Your task to perform on an android device: Show the shopping cart on target. Search for "logitech g933" on target, select the first entry, add it to the cart, then select checkout. Image 0: 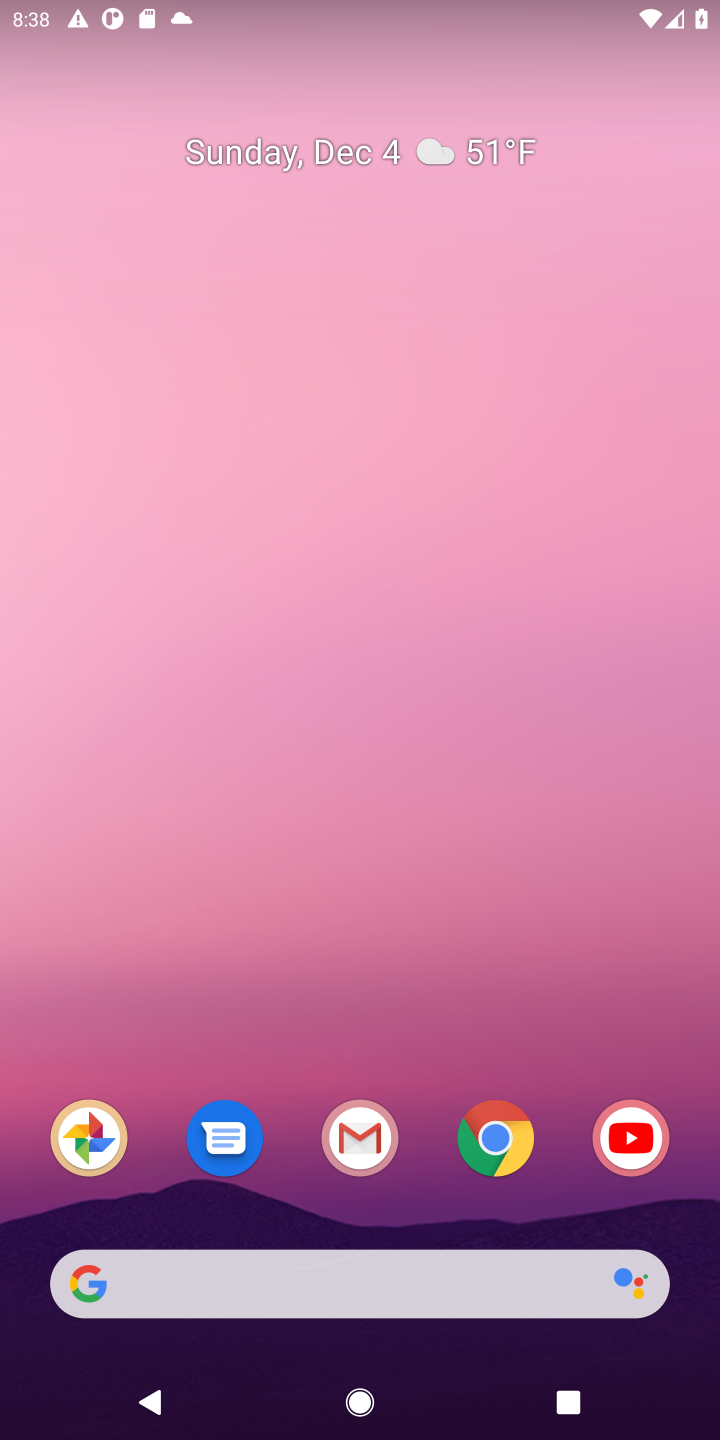
Step 0: click (500, 1134)
Your task to perform on an android device: Show the shopping cart on target. Search for "logitech g933" on target, select the first entry, add it to the cart, then select checkout. Image 1: 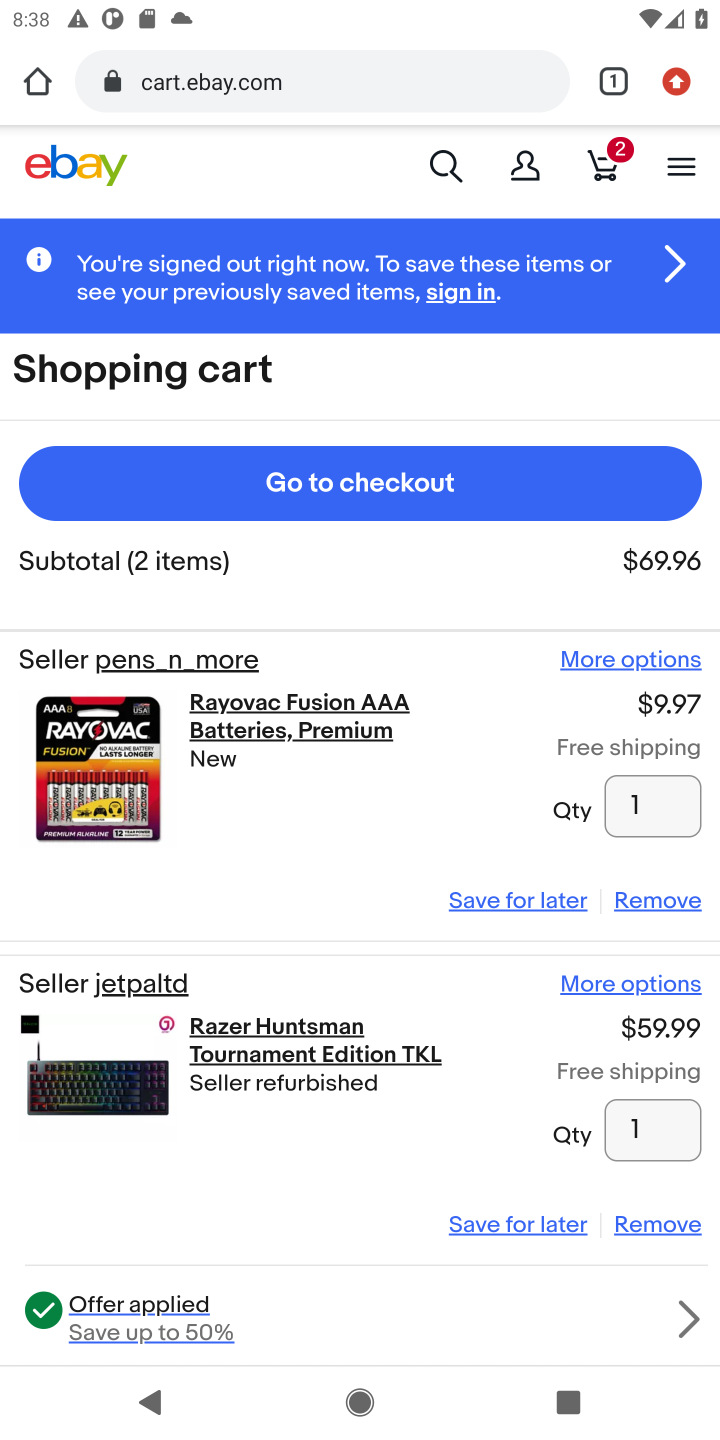
Step 1: click (460, 71)
Your task to perform on an android device: Show the shopping cart on target. Search for "logitech g933" on target, select the first entry, add it to the cart, then select checkout. Image 2: 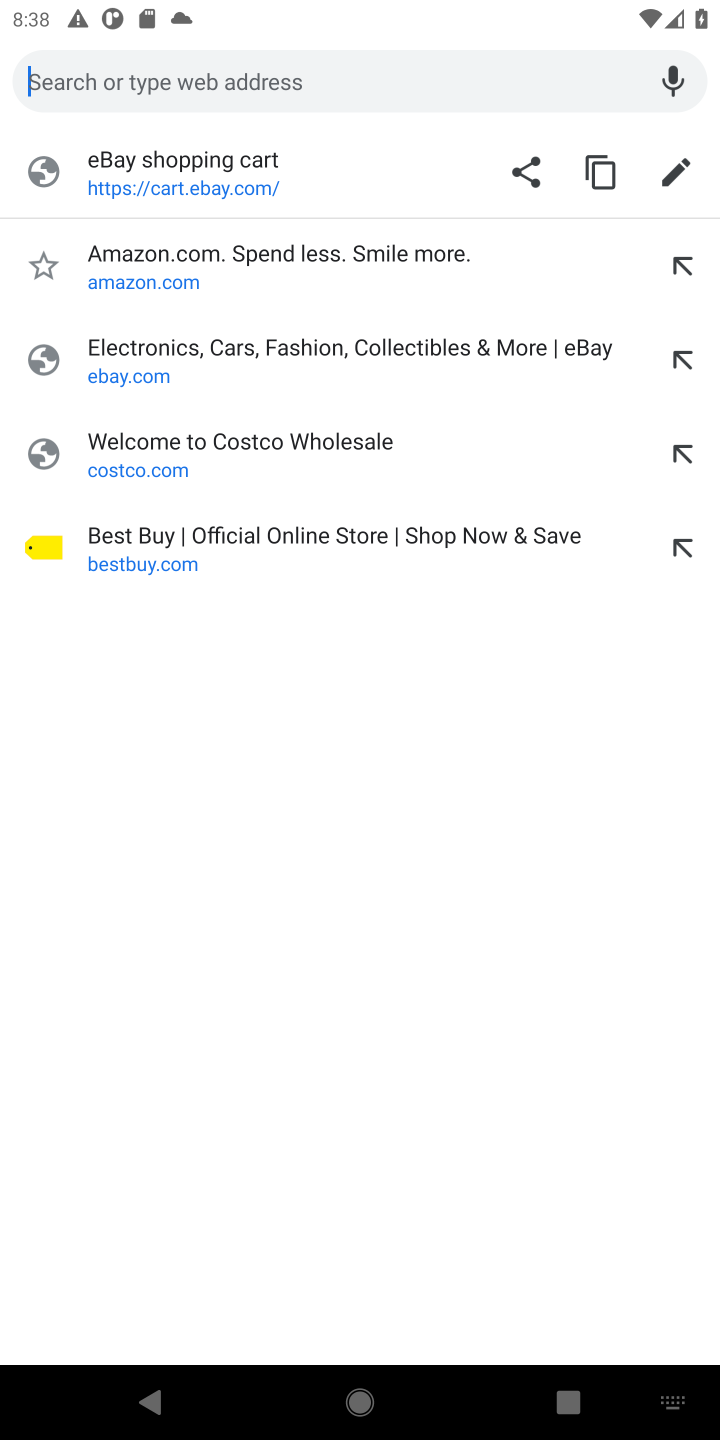
Step 2: type "target"
Your task to perform on an android device: Show the shopping cart on target. Search for "logitech g933" on target, select the first entry, add it to the cart, then select checkout. Image 3: 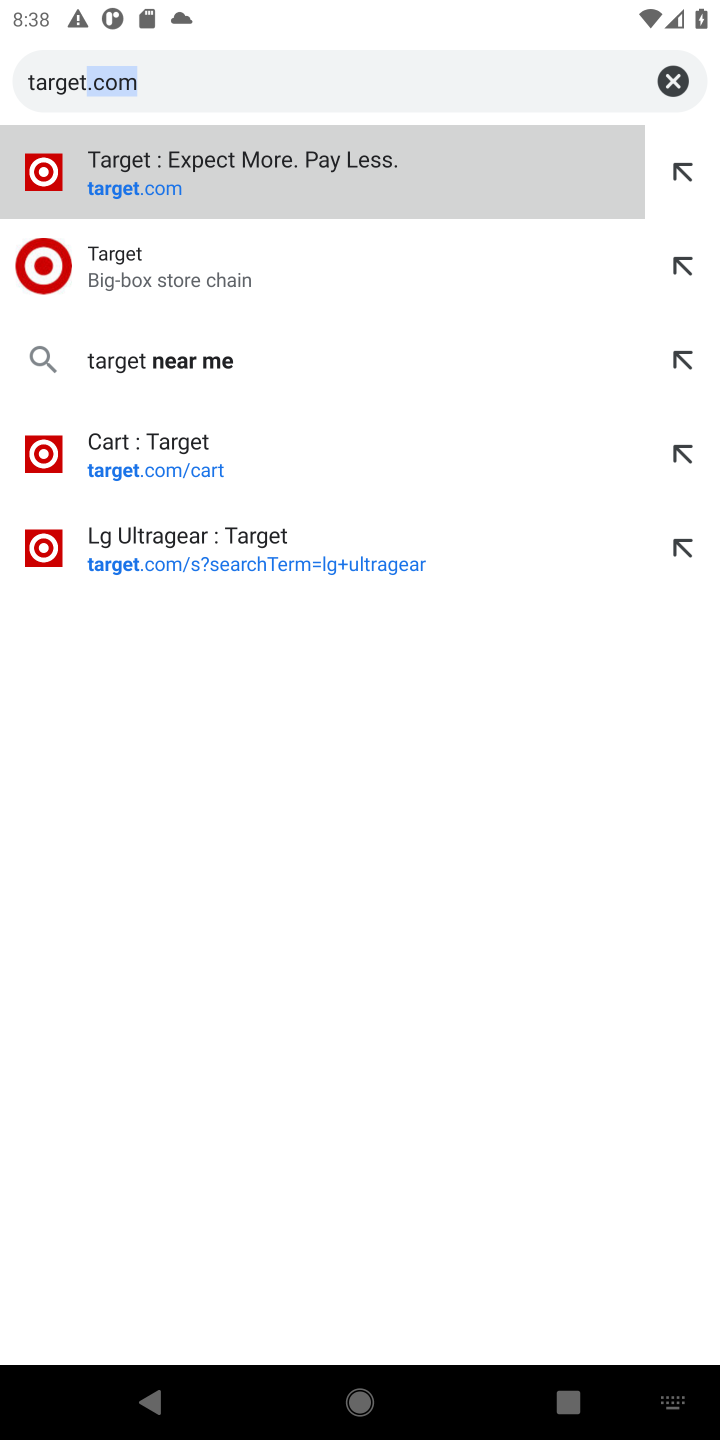
Step 3: press enter
Your task to perform on an android device: Show the shopping cart on target. Search for "logitech g933" on target, select the first entry, add it to the cart, then select checkout. Image 4: 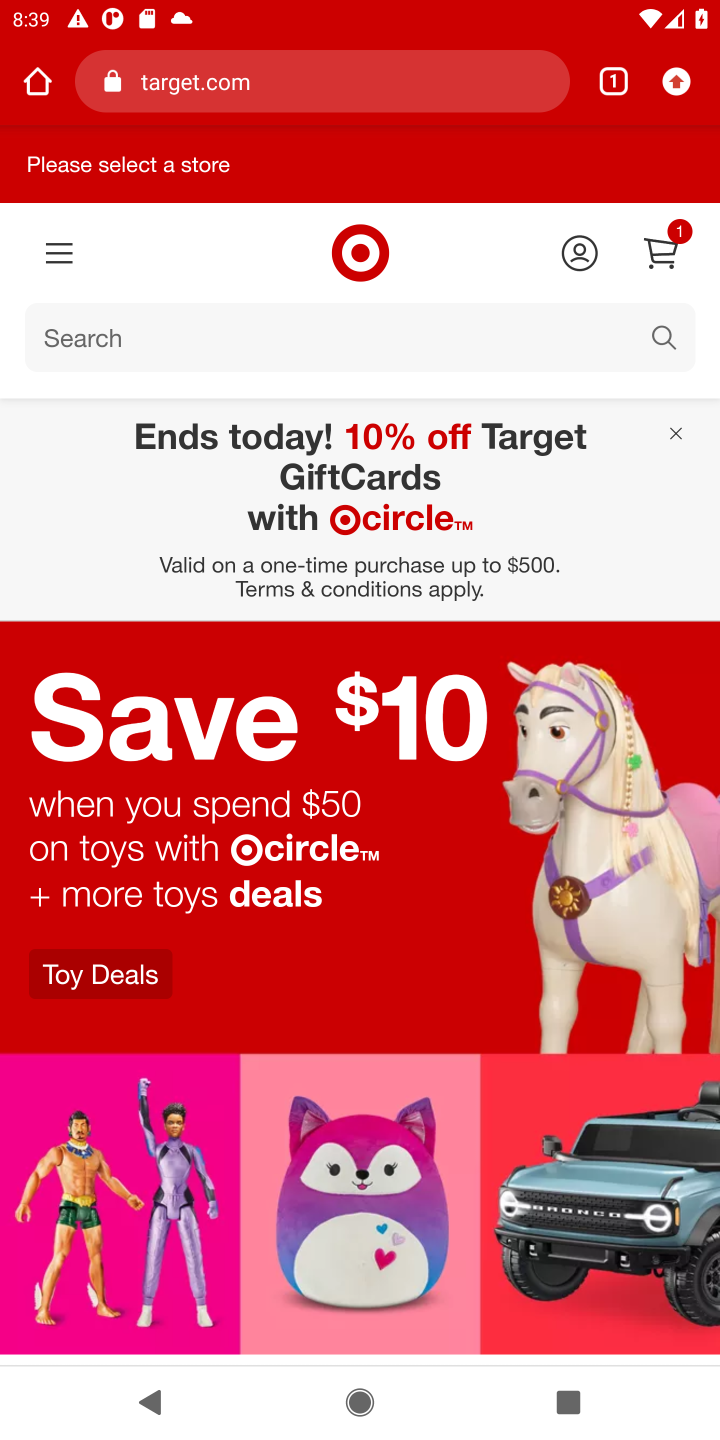
Step 4: click (655, 336)
Your task to perform on an android device: Show the shopping cart on target. Search for "logitech g933" on target, select the first entry, add it to the cart, then select checkout. Image 5: 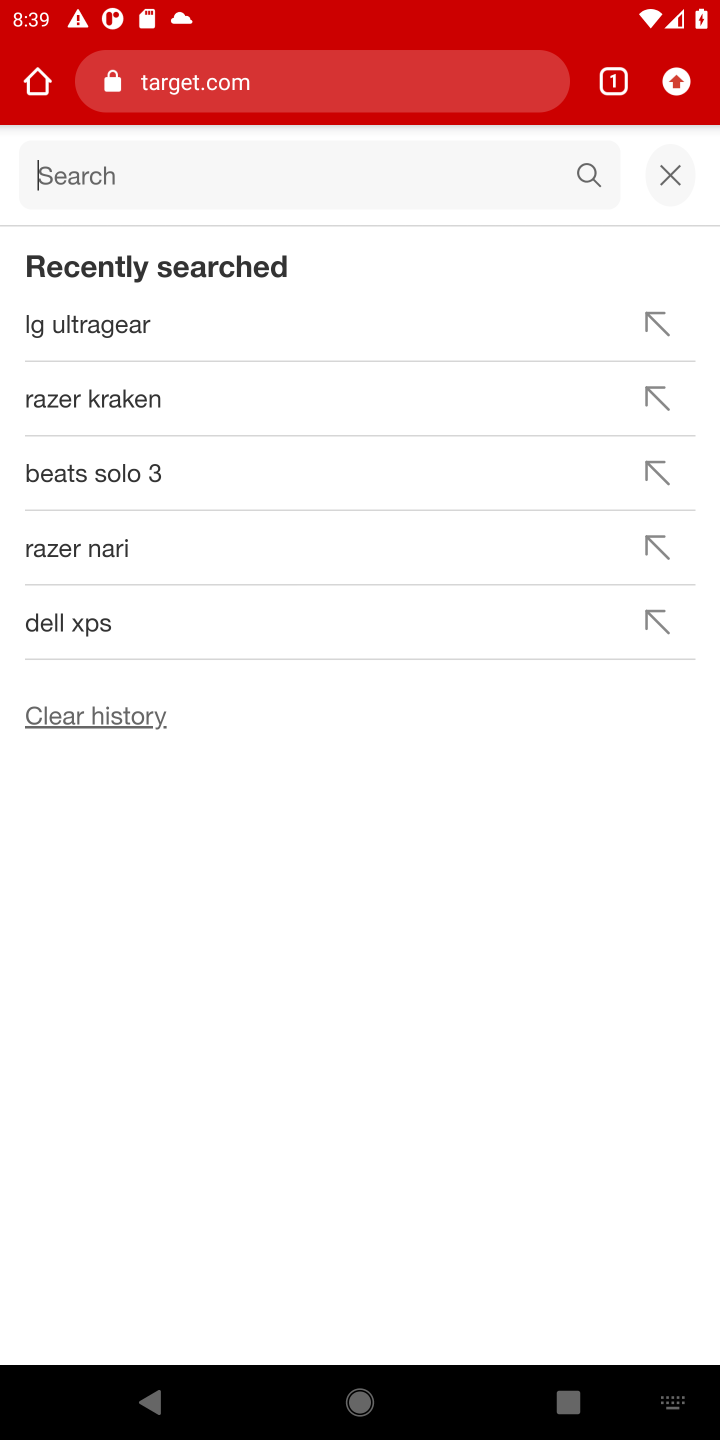
Step 5: type "logitech g933"
Your task to perform on an android device: Show the shopping cart on target. Search for "logitech g933" on target, select the first entry, add it to the cart, then select checkout. Image 6: 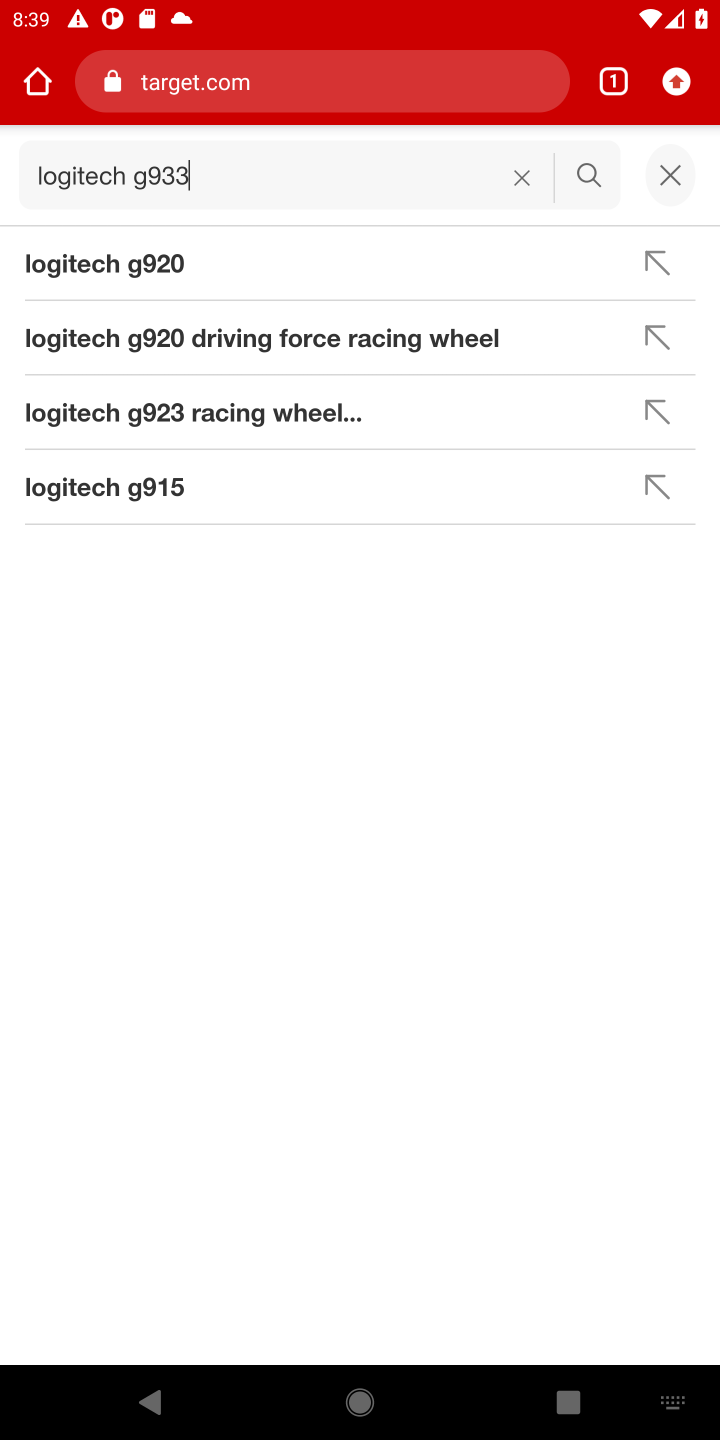
Step 6: press enter
Your task to perform on an android device: Show the shopping cart on target. Search for "logitech g933" on target, select the first entry, add it to the cart, then select checkout. Image 7: 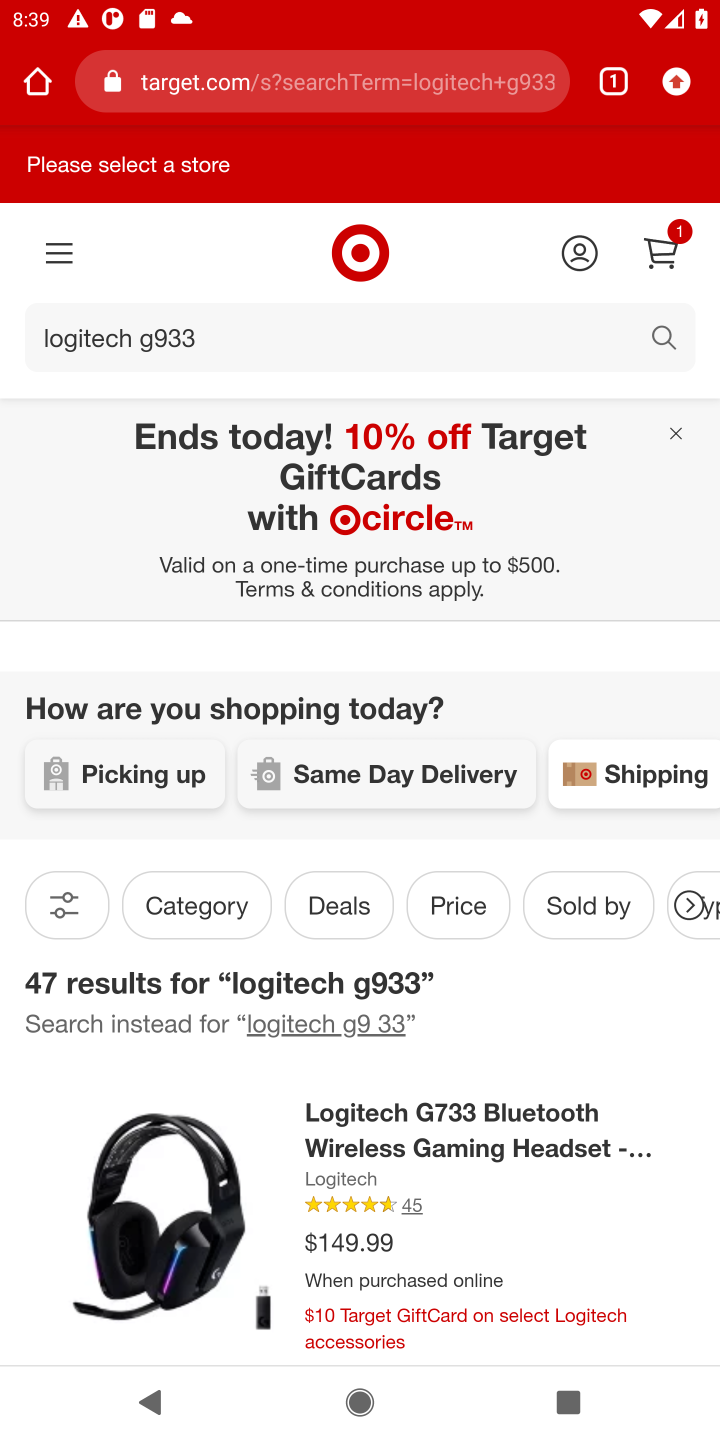
Step 7: task complete